Your task to perform on an android device: Open accessibility settings Image 0: 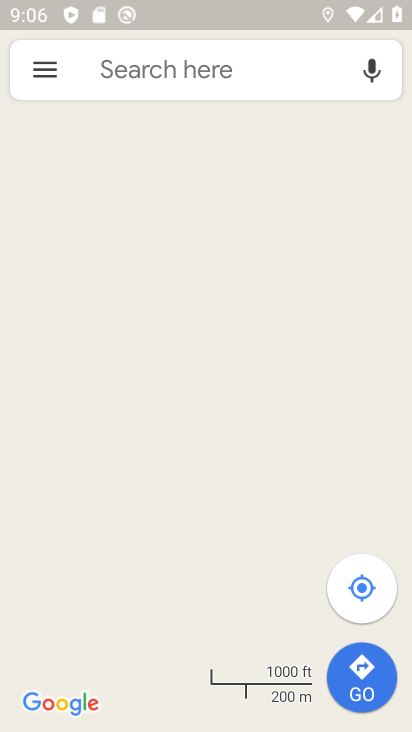
Step 0: press home button
Your task to perform on an android device: Open accessibility settings Image 1: 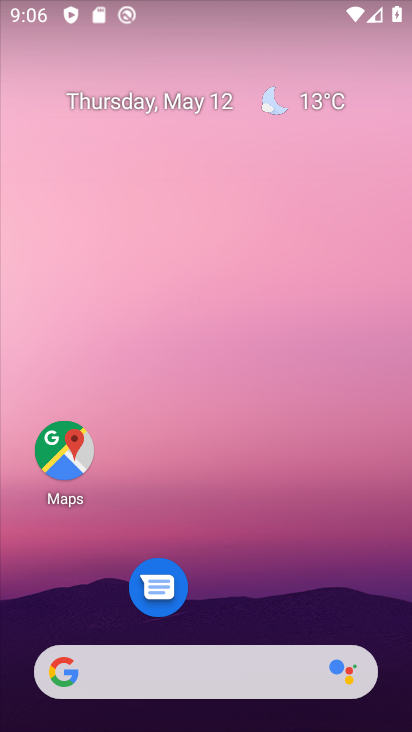
Step 1: drag from (222, 644) to (192, 43)
Your task to perform on an android device: Open accessibility settings Image 2: 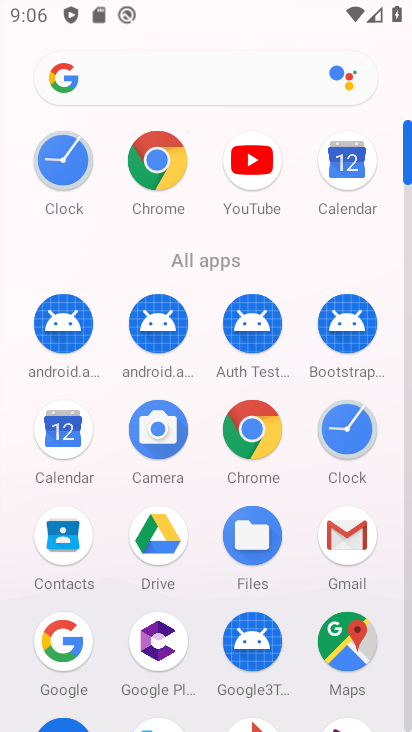
Step 2: drag from (204, 599) to (173, 115)
Your task to perform on an android device: Open accessibility settings Image 3: 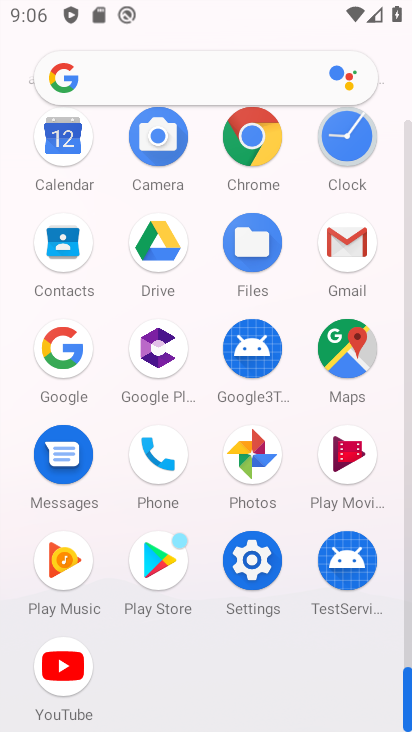
Step 3: click (246, 571)
Your task to perform on an android device: Open accessibility settings Image 4: 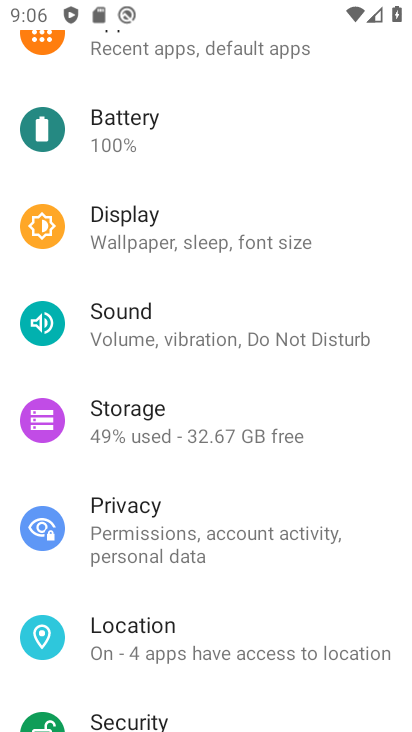
Step 4: drag from (187, 268) to (170, 5)
Your task to perform on an android device: Open accessibility settings Image 5: 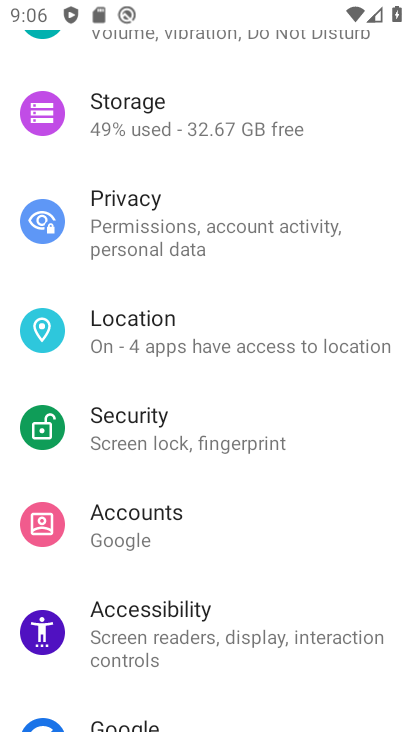
Step 5: click (165, 614)
Your task to perform on an android device: Open accessibility settings Image 6: 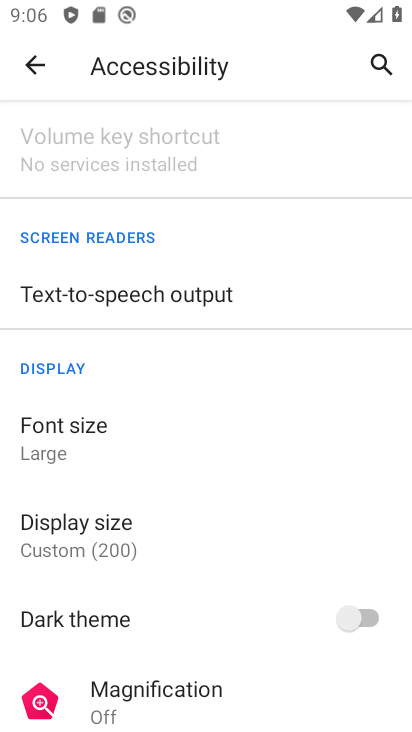
Step 6: task complete